Your task to perform on an android device: star an email in the gmail app Image 0: 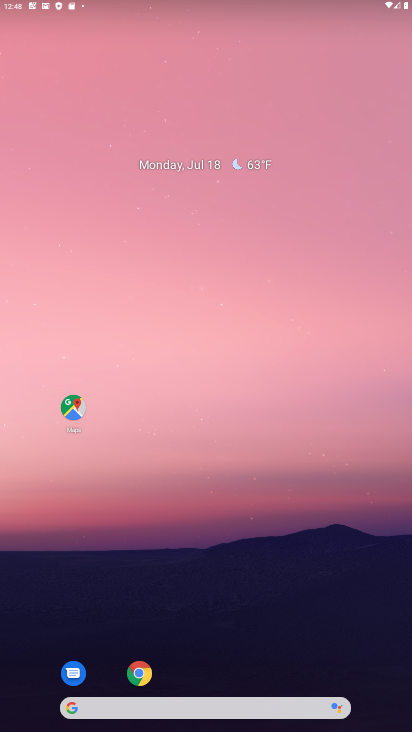
Step 0: press home button
Your task to perform on an android device: star an email in the gmail app Image 1: 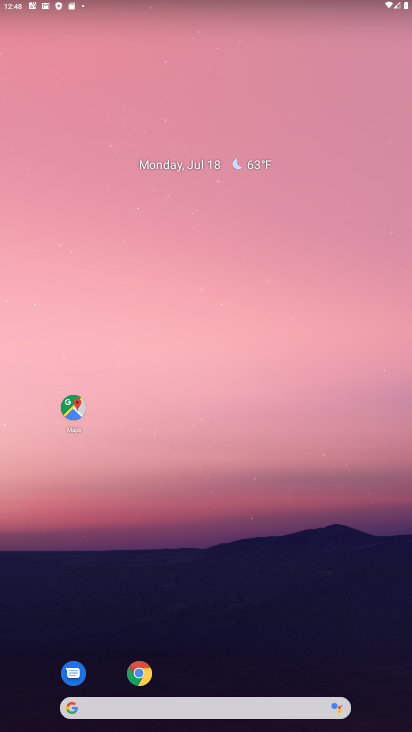
Step 1: drag from (223, 677) to (216, 82)
Your task to perform on an android device: star an email in the gmail app Image 2: 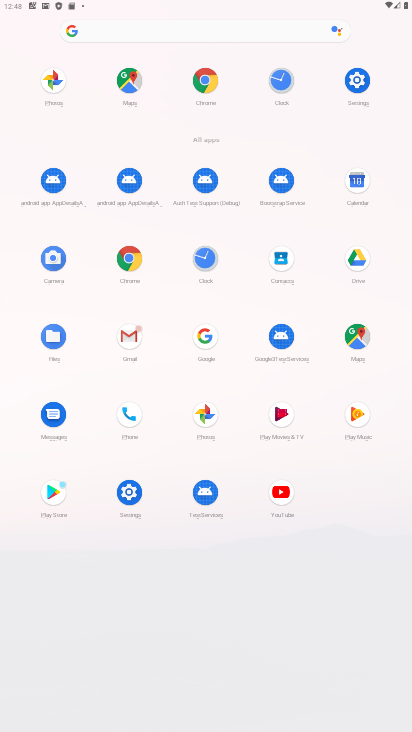
Step 2: click (124, 336)
Your task to perform on an android device: star an email in the gmail app Image 3: 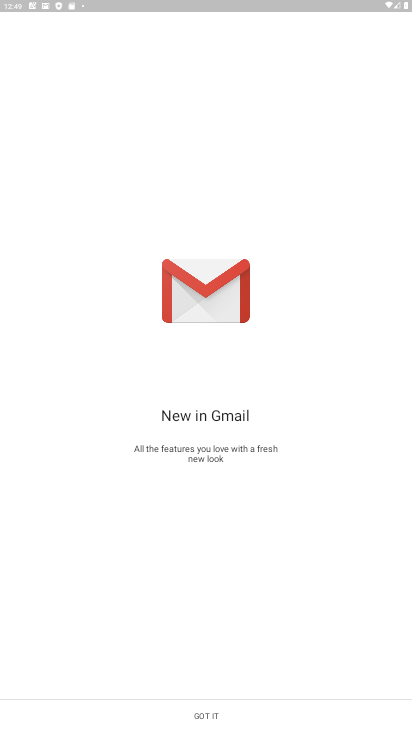
Step 3: click (199, 714)
Your task to perform on an android device: star an email in the gmail app Image 4: 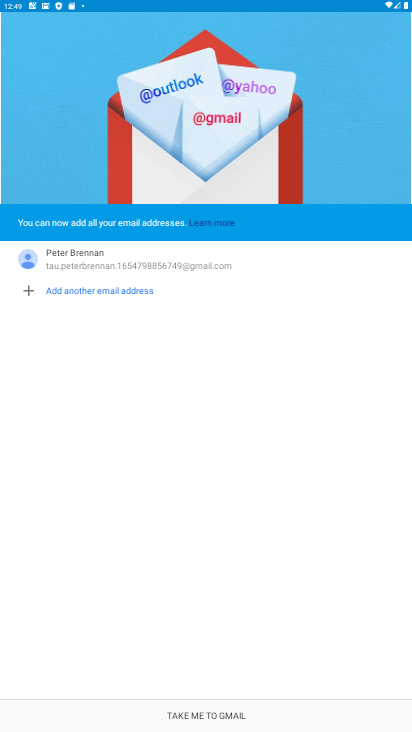
Step 4: click (199, 714)
Your task to perform on an android device: star an email in the gmail app Image 5: 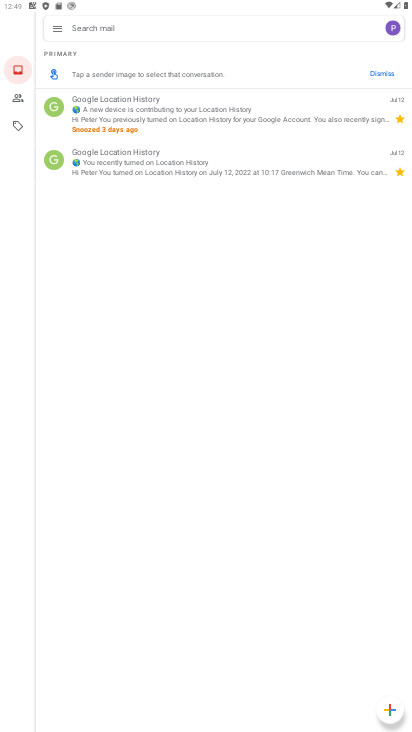
Step 5: task complete